Your task to perform on an android device: Go to settings Image 0: 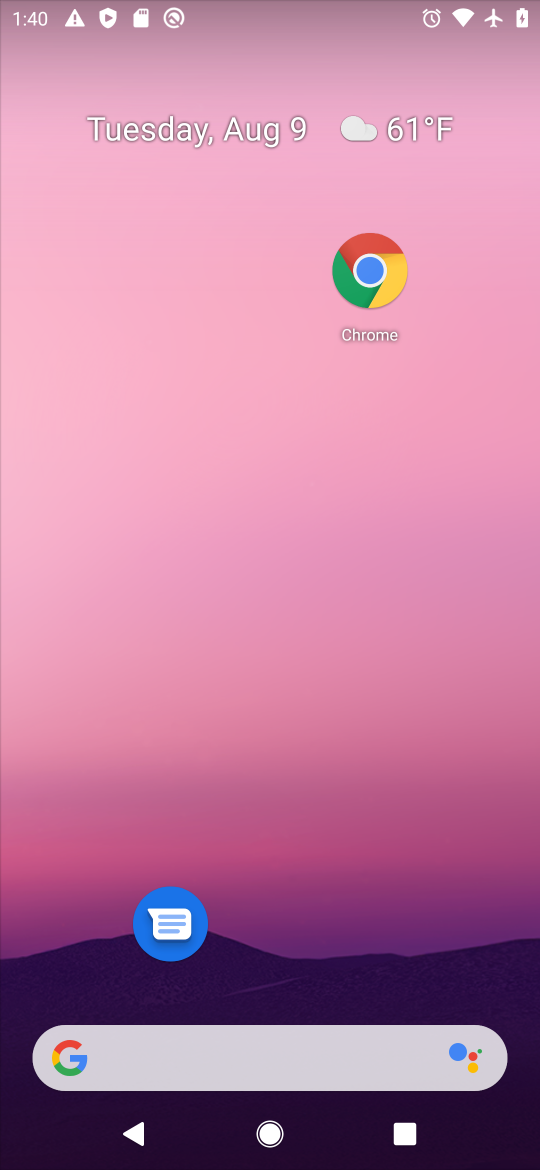
Step 0: drag from (316, 1007) to (221, 59)
Your task to perform on an android device: Go to settings Image 1: 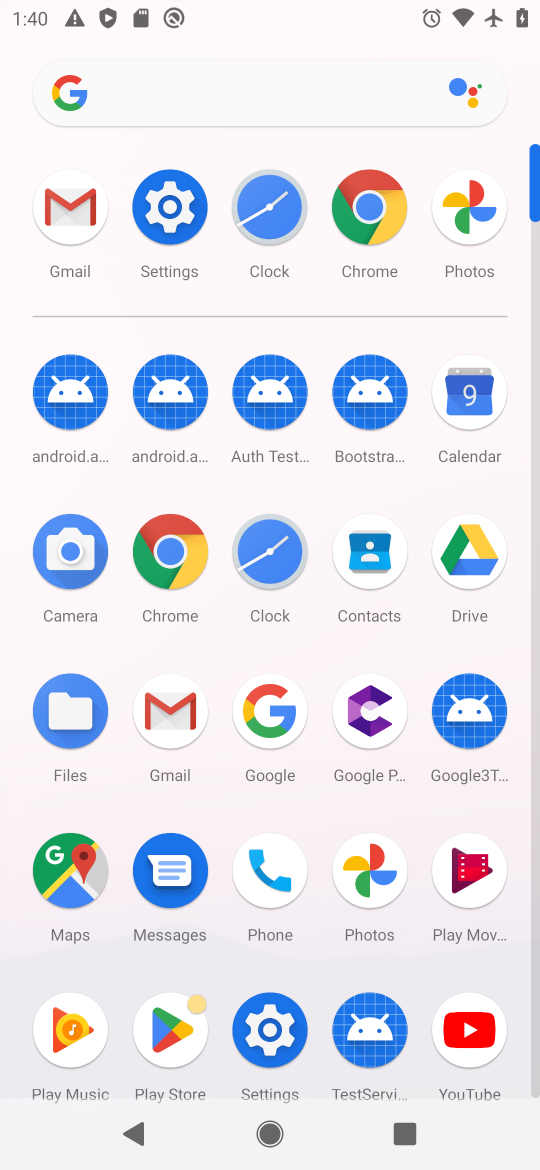
Step 1: click (267, 1036)
Your task to perform on an android device: Go to settings Image 2: 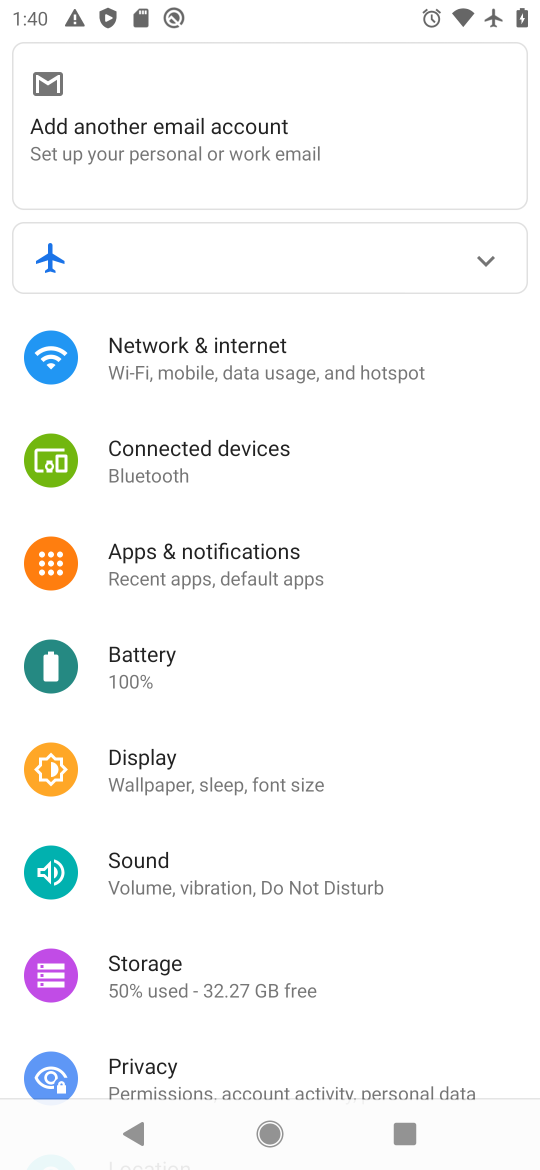
Step 2: task complete